Your task to perform on an android device: open a bookmark in the chrome app Image 0: 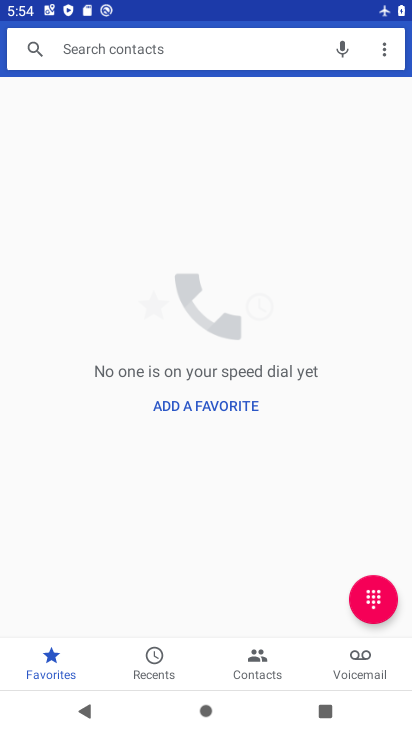
Step 0: drag from (311, 679) to (286, 5)
Your task to perform on an android device: open a bookmark in the chrome app Image 1: 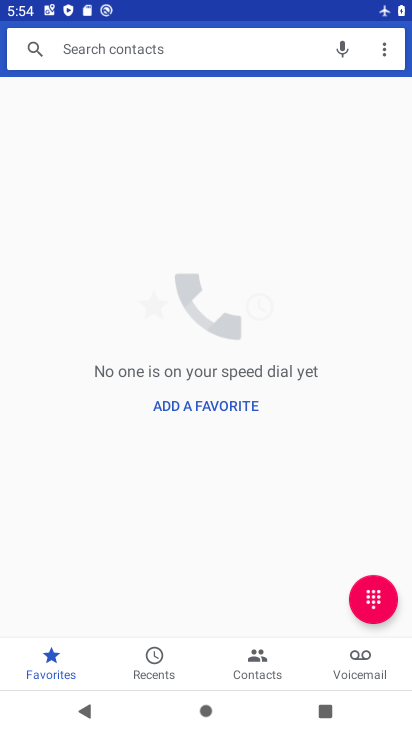
Step 1: press home button
Your task to perform on an android device: open a bookmark in the chrome app Image 2: 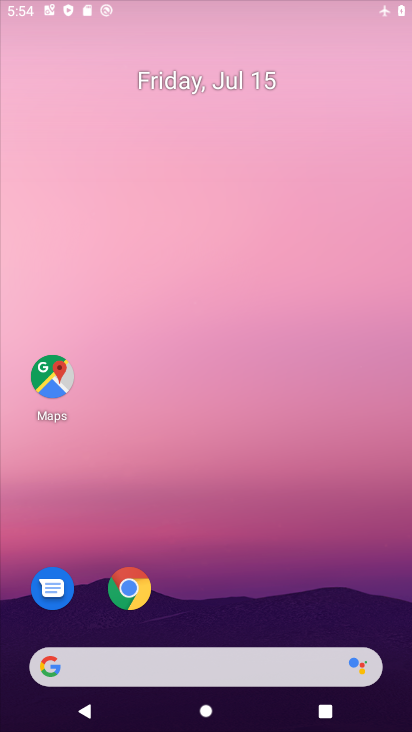
Step 2: drag from (254, 658) to (260, 157)
Your task to perform on an android device: open a bookmark in the chrome app Image 3: 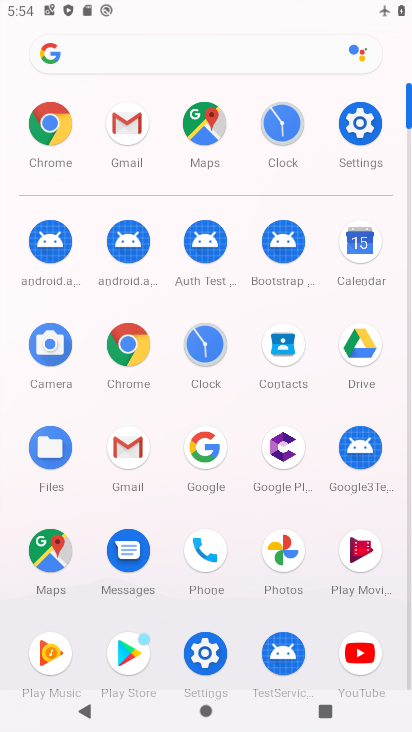
Step 3: click (138, 347)
Your task to perform on an android device: open a bookmark in the chrome app Image 4: 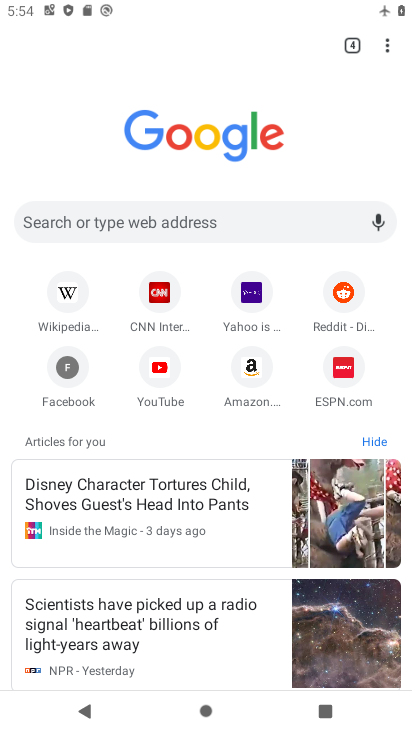
Step 4: click (383, 43)
Your task to perform on an android device: open a bookmark in the chrome app Image 5: 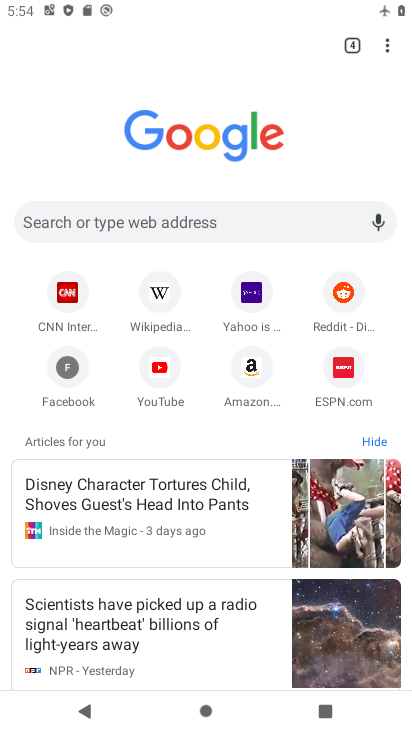
Step 5: task complete